Your task to perform on an android device: Toggle the flashlight Image 0: 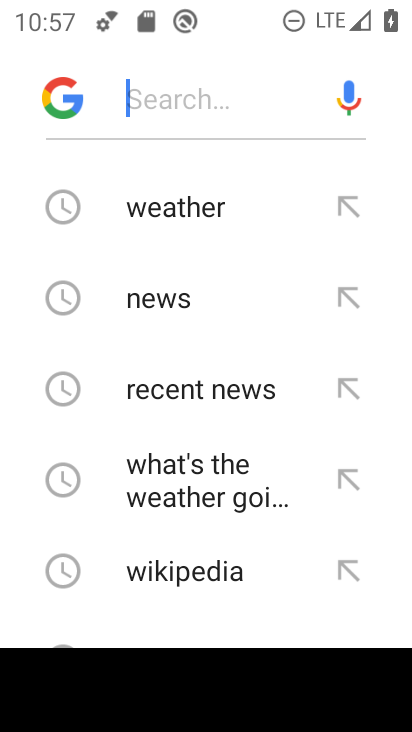
Step 0: press home button
Your task to perform on an android device: Toggle the flashlight Image 1: 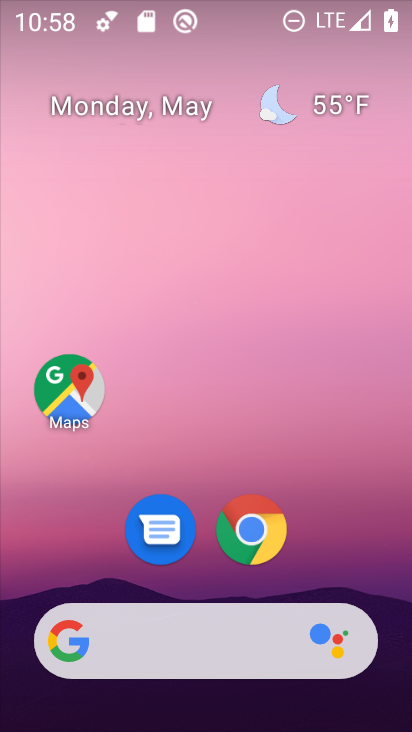
Step 1: task complete